Your task to perform on an android device: What is the news today? Image 0: 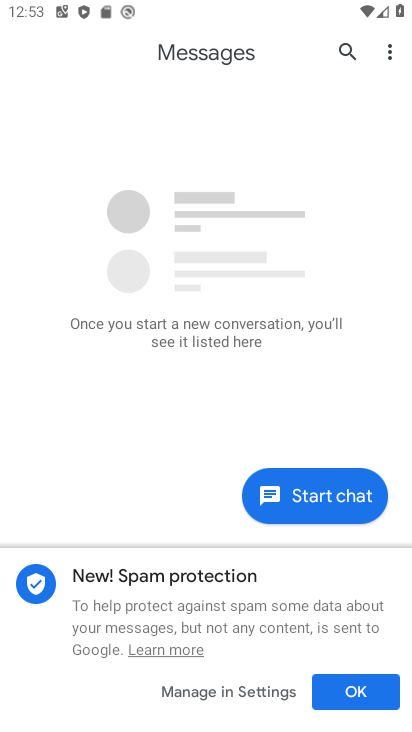
Step 0: press home button
Your task to perform on an android device: What is the news today? Image 1: 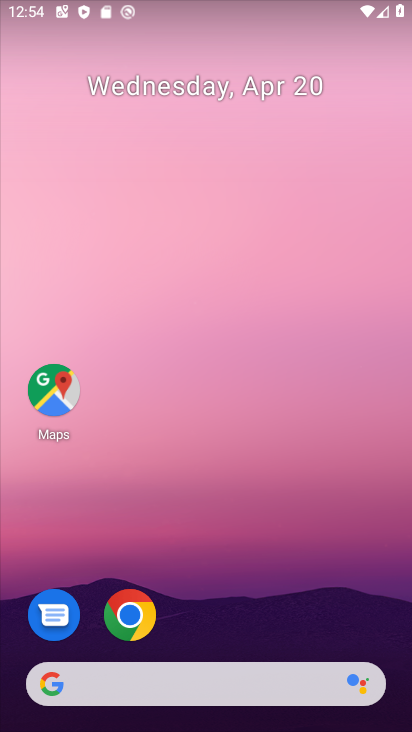
Step 1: click (386, 380)
Your task to perform on an android device: What is the news today? Image 2: 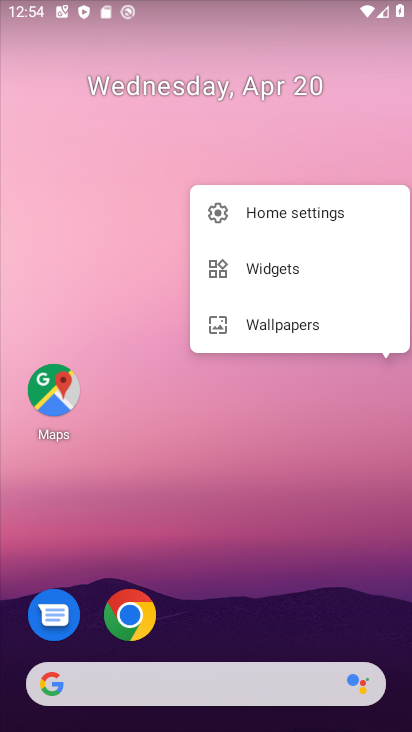
Step 2: click (82, 257)
Your task to perform on an android device: What is the news today? Image 3: 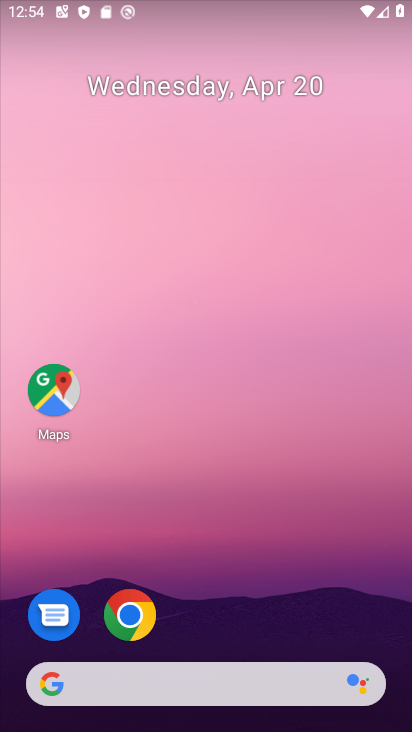
Step 3: task complete